Your task to perform on an android device: stop showing notifications on the lock screen Image 0: 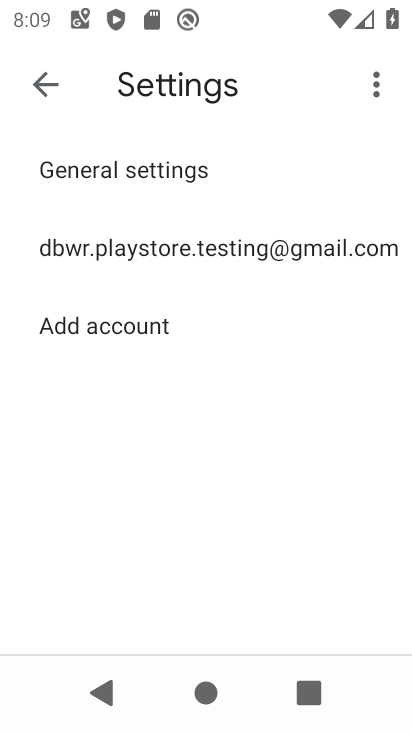
Step 0: press home button
Your task to perform on an android device: stop showing notifications on the lock screen Image 1: 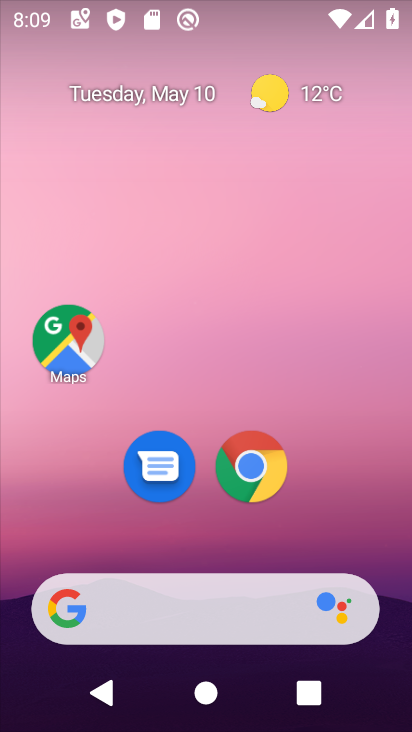
Step 1: drag from (212, 528) to (275, 5)
Your task to perform on an android device: stop showing notifications on the lock screen Image 2: 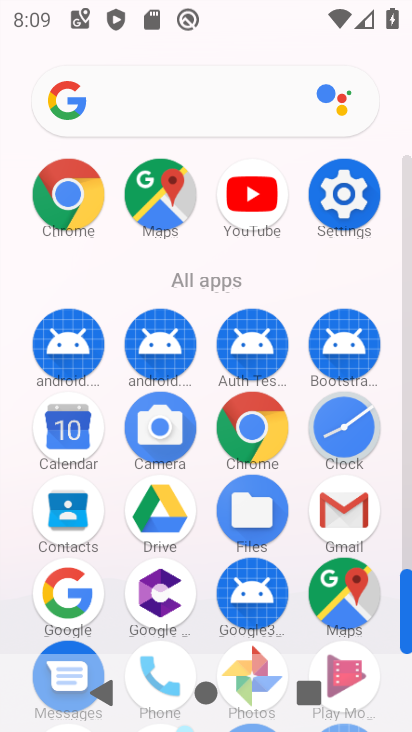
Step 2: click (342, 225)
Your task to perform on an android device: stop showing notifications on the lock screen Image 3: 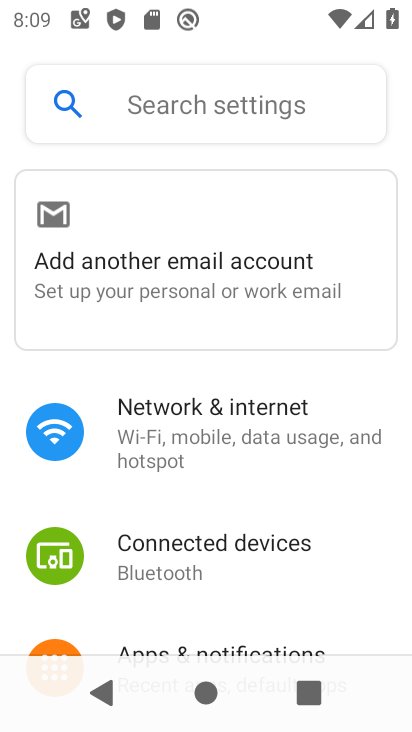
Step 3: drag from (242, 442) to (298, 191)
Your task to perform on an android device: stop showing notifications on the lock screen Image 4: 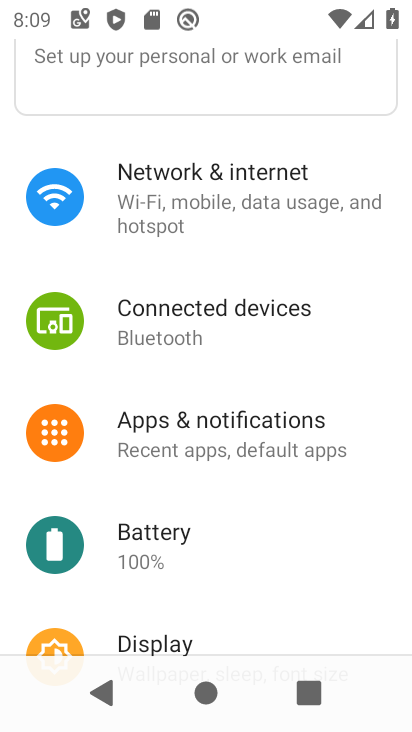
Step 4: click (239, 453)
Your task to perform on an android device: stop showing notifications on the lock screen Image 5: 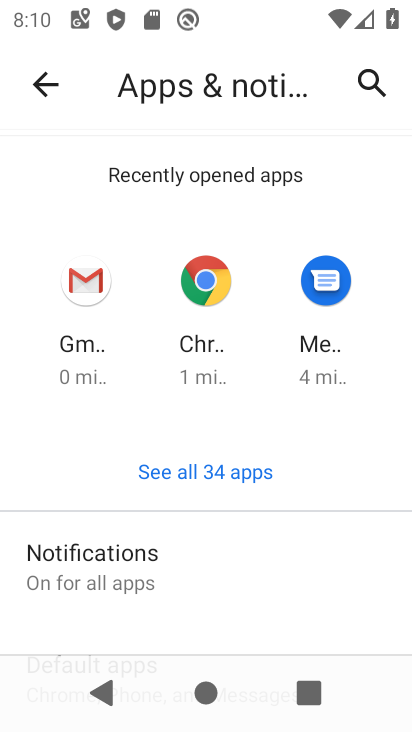
Step 5: click (141, 565)
Your task to perform on an android device: stop showing notifications on the lock screen Image 6: 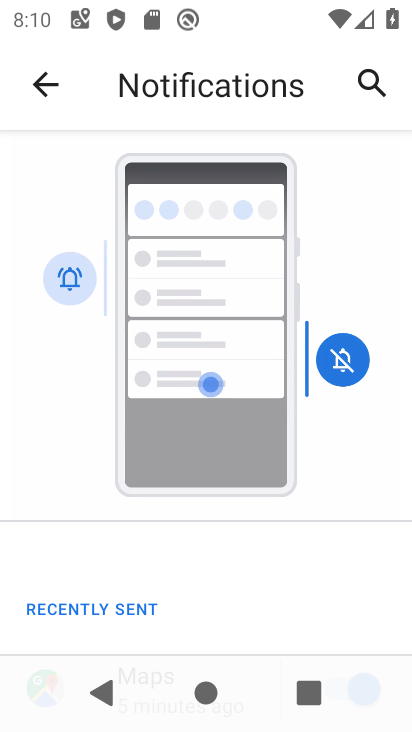
Step 6: drag from (126, 588) to (174, 268)
Your task to perform on an android device: stop showing notifications on the lock screen Image 7: 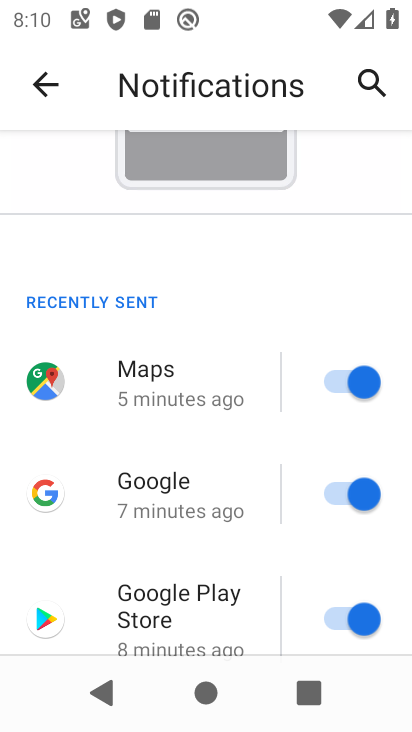
Step 7: drag from (140, 557) to (230, 131)
Your task to perform on an android device: stop showing notifications on the lock screen Image 8: 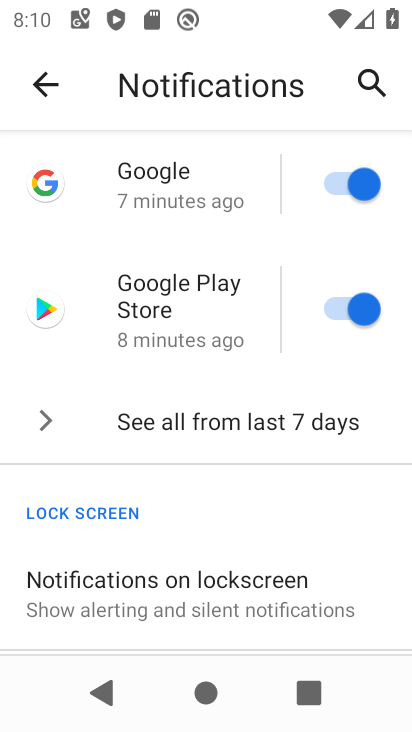
Step 8: drag from (205, 514) to (241, 317)
Your task to perform on an android device: stop showing notifications on the lock screen Image 9: 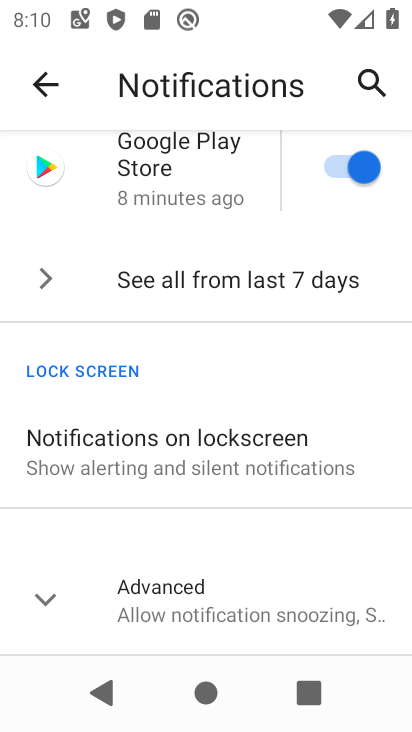
Step 9: click (189, 461)
Your task to perform on an android device: stop showing notifications on the lock screen Image 10: 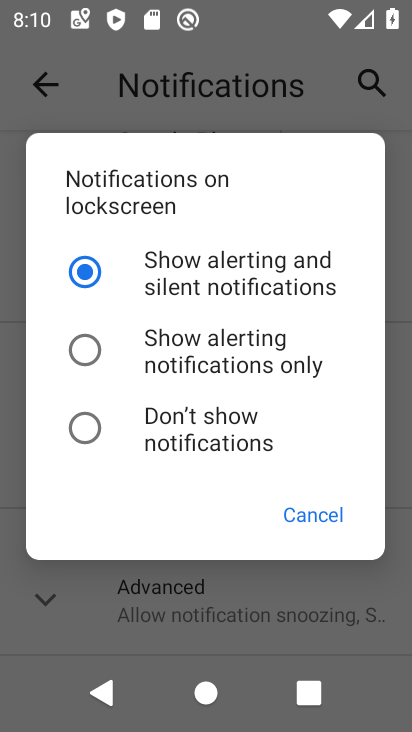
Step 10: click (122, 436)
Your task to perform on an android device: stop showing notifications on the lock screen Image 11: 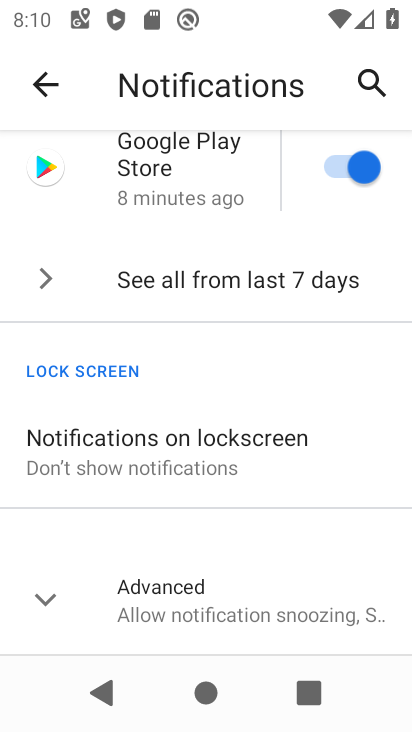
Step 11: task complete